Your task to perform on an android device: turn on translation in the chrome app Image 0: 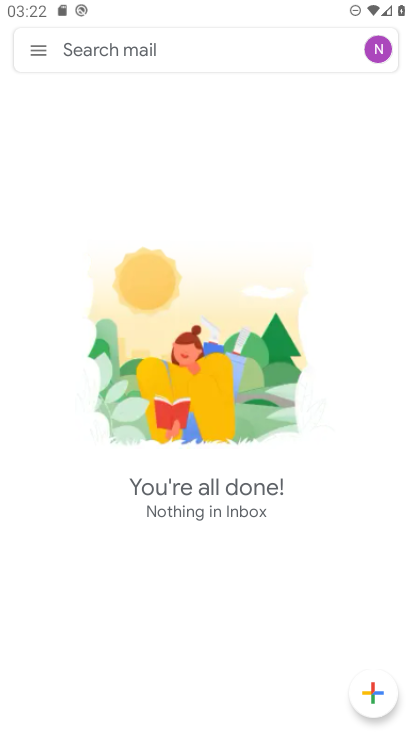
Step 0: press home button
Your task to perform on an android device: turn on translation in the chrome app Image 1: 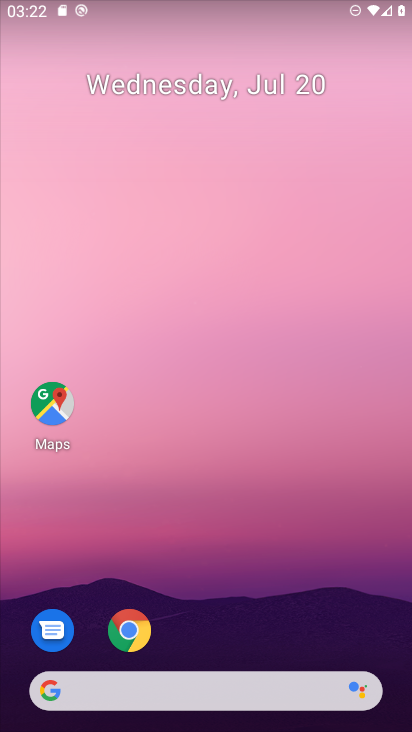
Step 1: drag from (344, 575) to (351, 106)
Your task to perform on an android device: turn on translation in the chrome app Image 2: 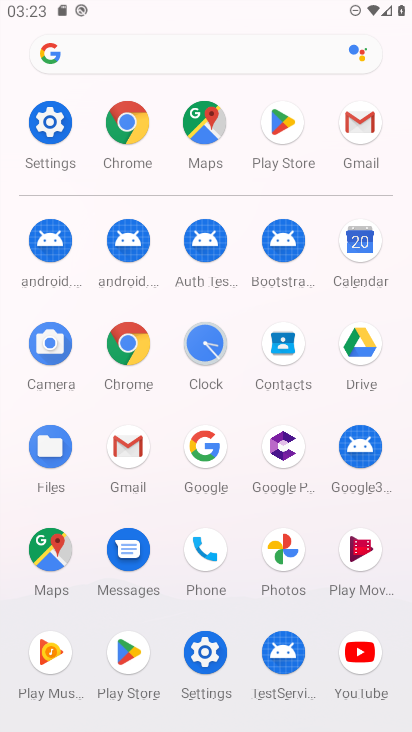
Step 2: click (137, 338)
Your task to perform on an android device: turn on translation in the chrome app Image 3: 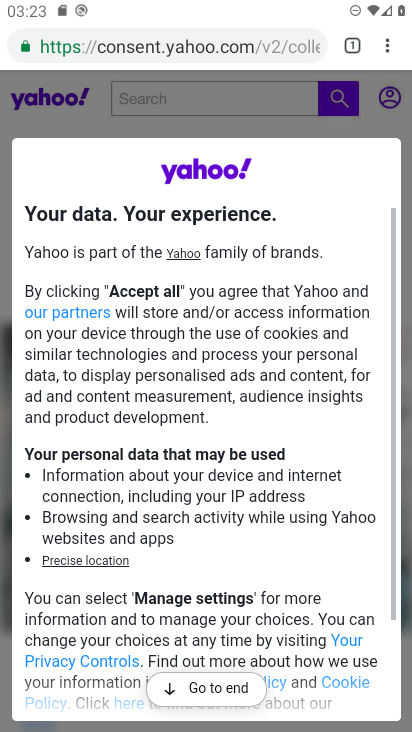
Step 3: click (391, 48)
Your task to perform on an android device: turn on translation in the chrome app Image 4: 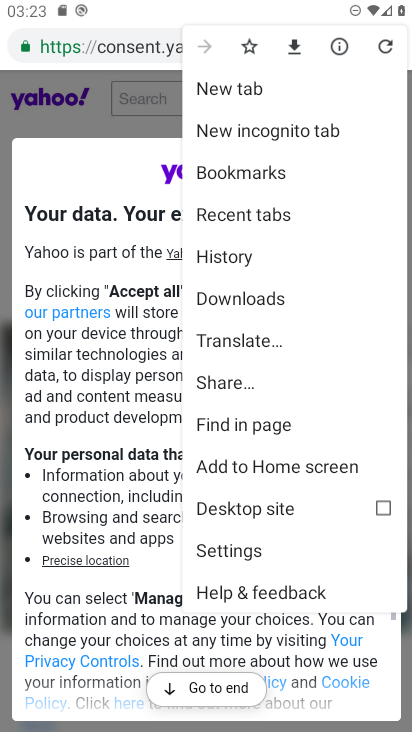
Step 4: click (249, 550)
Your task to perform on an android device: turn on translation in the chrome app Image 5: 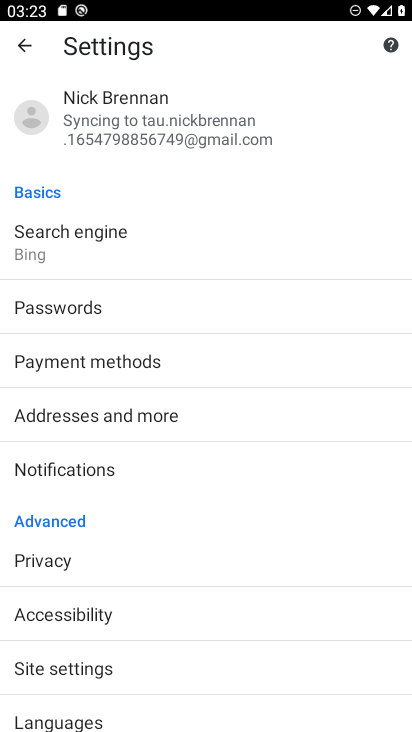
Step 5: drag from (266, 620) to (294, 512)
Your task to perform on an android device: turn on translation in the chrome app Image 6: 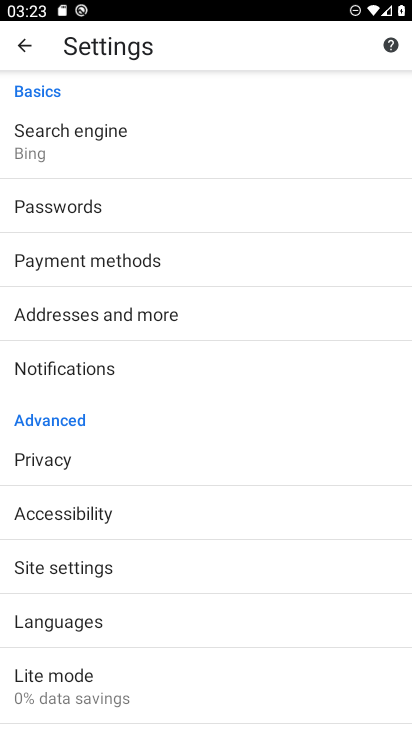
Step 6: drag from (305, 623) to (316, 511)
Your task to perform on an android device: turn on translation in the chrome app Image 7: 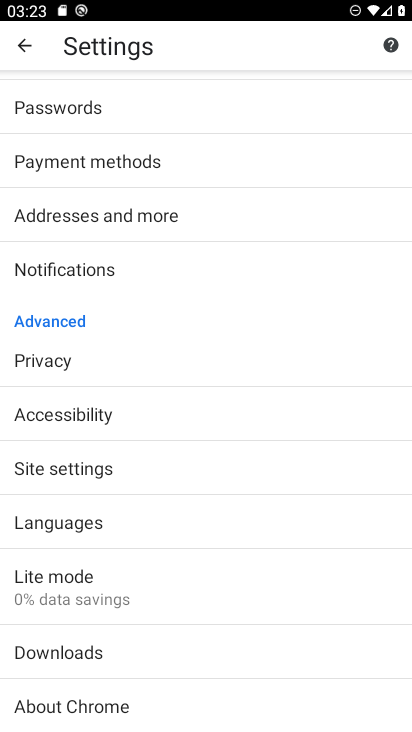
Step 7: click (364, 511)
Your task to perform on an android device: turn on translation in the chrome app Image 8: 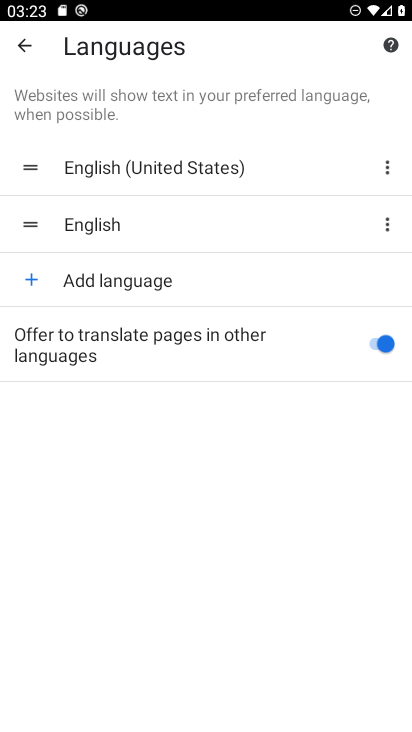
Step 8: task complete